Your task to perform on an android device: turn on javascript in the chrome app Image 0: 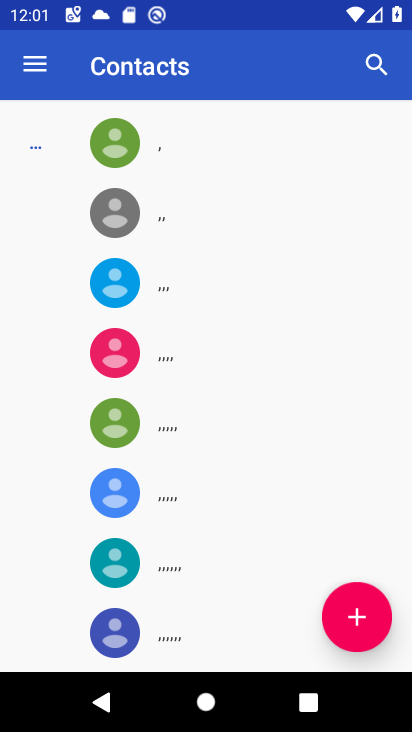
Step 0: press home button
Your task to perform on an android device: turn on javascript in the chrome app Image 1: 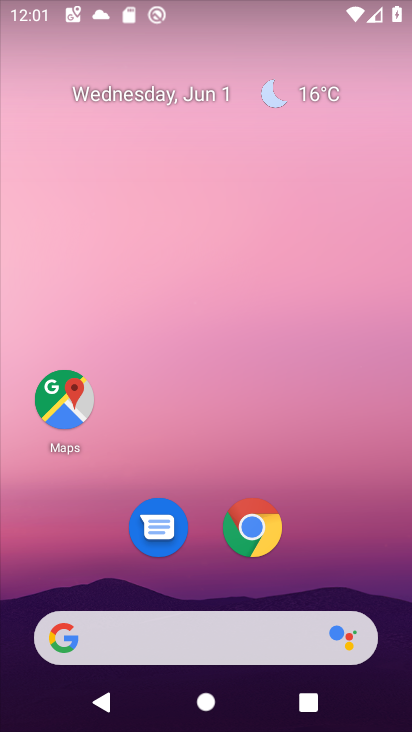
Step 1: click (259, 526)
Your task to perform on an android device: turn on javascript in the chrome app Image 2: 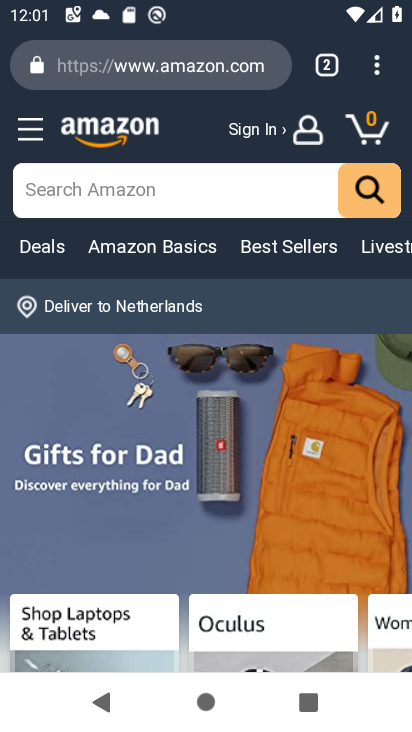
Step 2: click (377, 68)
Your task to perform on an android device: turn on javascript in the chrome app Image 3: 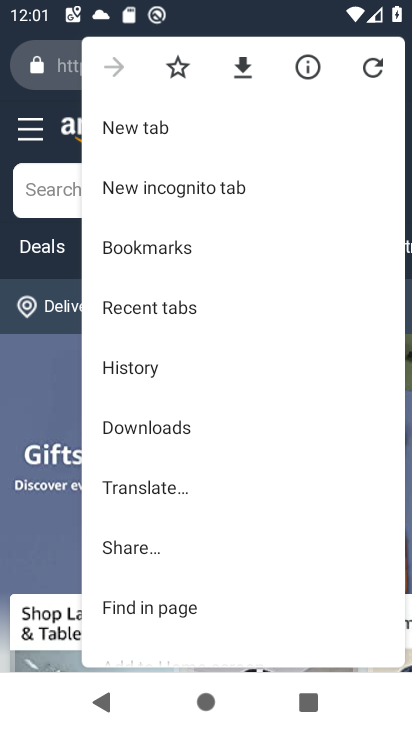
Step 3: drag from (240, 577) to (240, 202)
Your task to perform on an android device: turn on javascript in the chrome app Image 4: 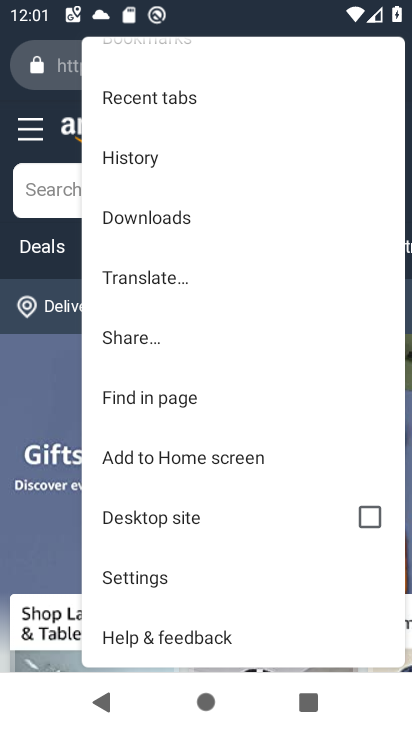
Step 4: click (158, 581)
Your task to perform on an android device: turn on javascript in the chrome app Image 5: 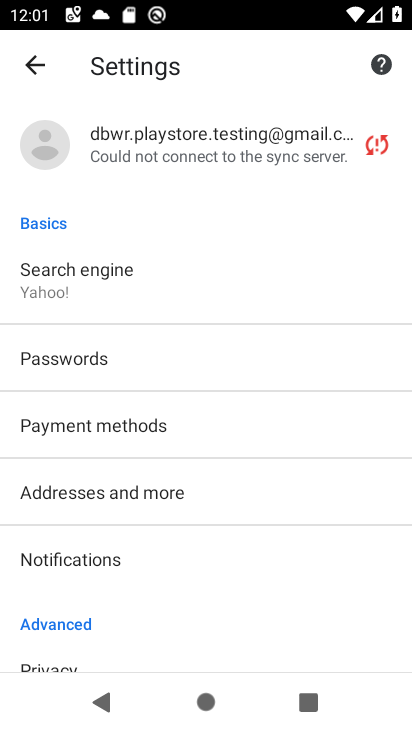
Step 5: drag from (188, 571) to (183, 242)
Your task to perform on an android device: turn on javascript in the chrome app Image 6: 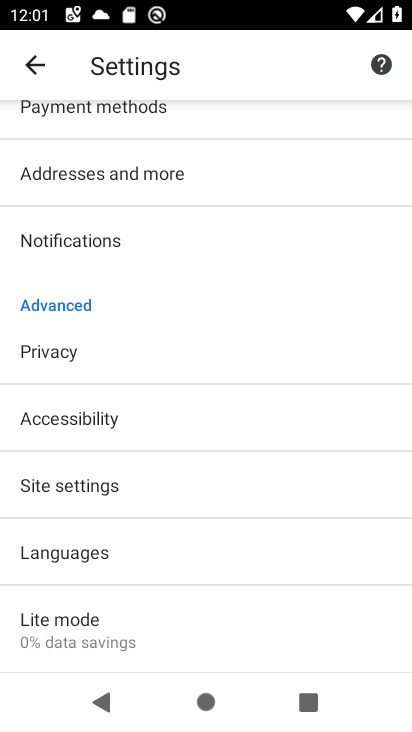
Step 6: click (60, 488)
Your task to perform on an android device: turn on javascript in the chrome app Image 7: 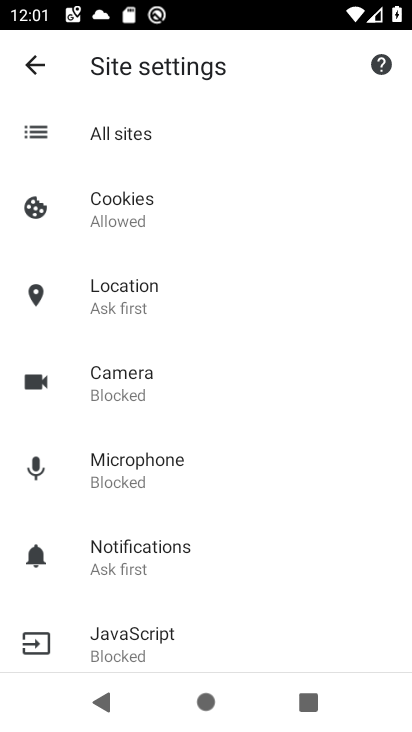
Step 7: click (153, 638)
Your task to perform on an android device: turn on javascript in the chrome app Image 8: 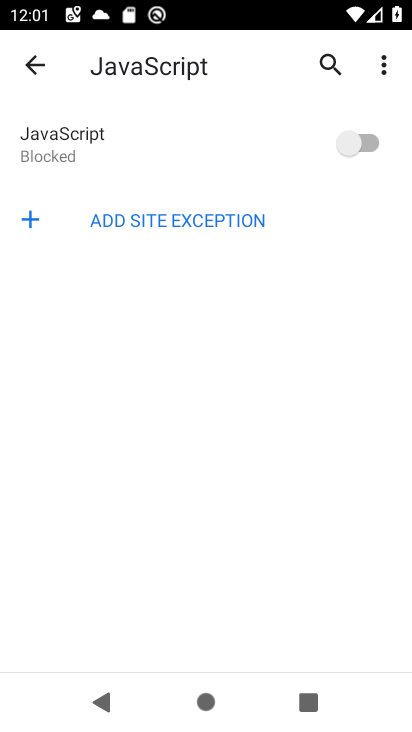
Step 8: click (331, 147)
Your task to perform on an android device: turn on javascript in the chrome app Image 9: 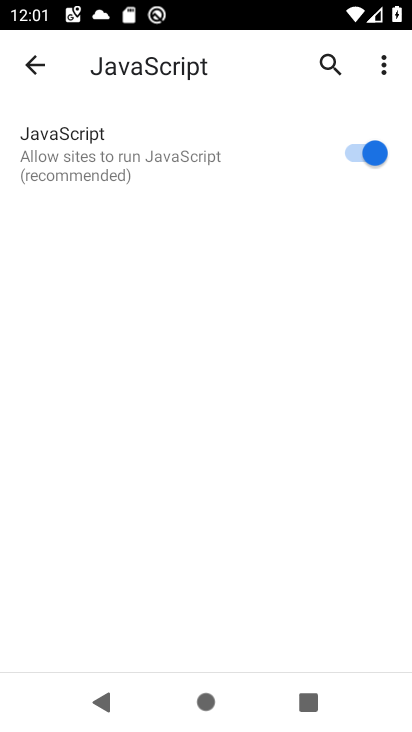
Step 9: task complete